Your task to perform on an android device: Open Chrome and go to the settings page Image 0: 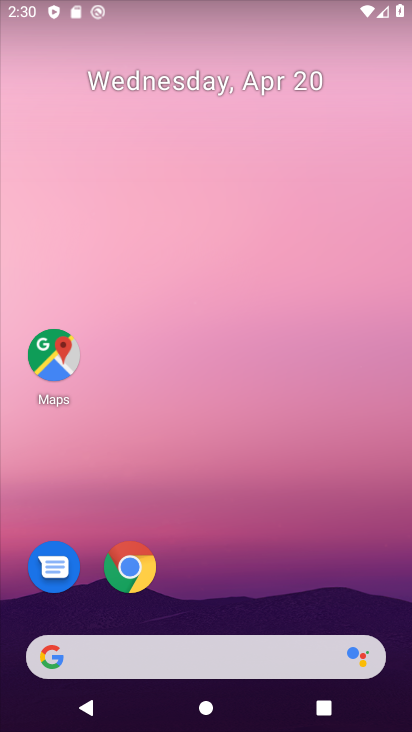
Step 0: click (132, 562)
Your task to perform on an android device: Open Chrome and go to the settings page Image 1: 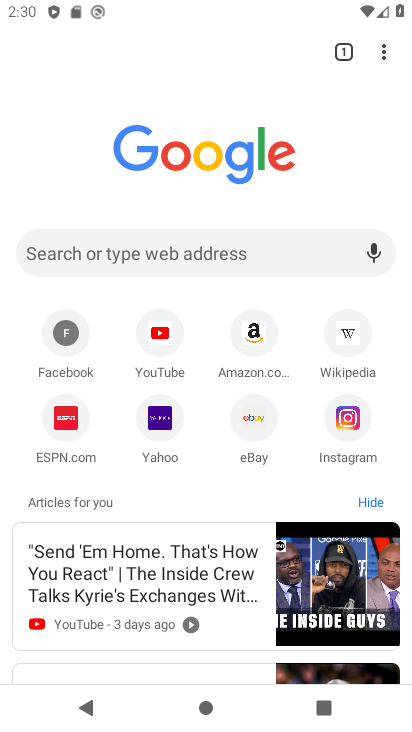
Step 1: task complete